Your task to perform on an android device: Open the stopwatch Image 0: 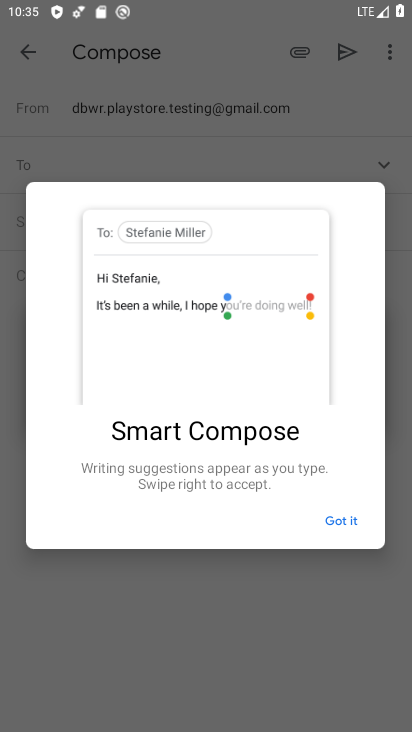
Step 0: press home button
Your task to perform on an android device: Open the stopwatch Image 1: 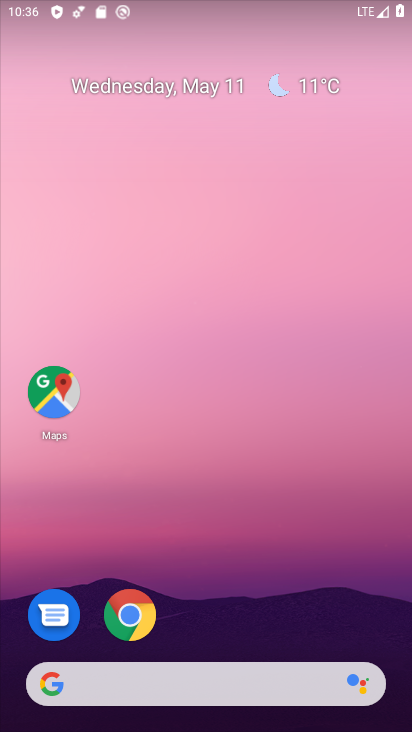
Step 1: drag from (248, 566) to (261, 187)
Your task to perform on an android device: Open the stopwatch Image 2: 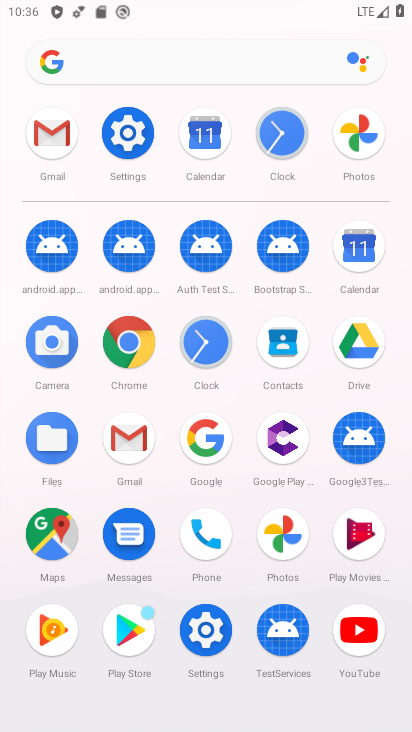
Step 2: click (204, 338)
Your task to perform on an android device: Open the stopwatch Image 3: 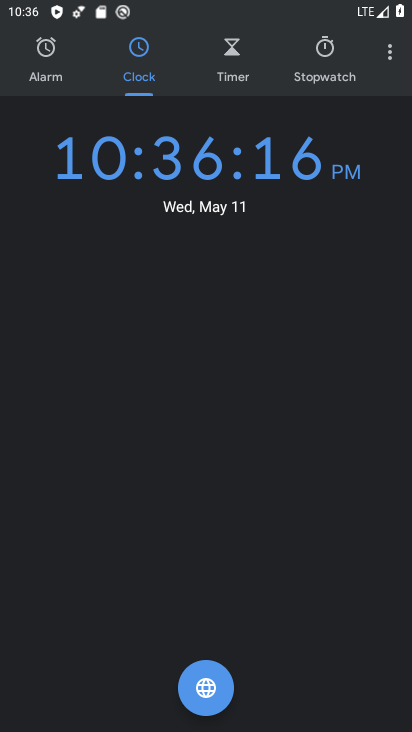
Step 3: click (319, 77)
Your task to perform on an android device: Open the stopwatch Image 4: 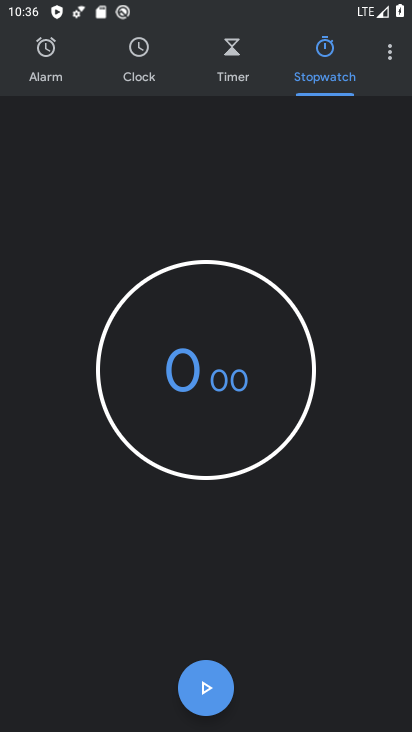
Step 4: task complete